Your task to perform on an android device: open a bookmark in the chrome app Image 0: 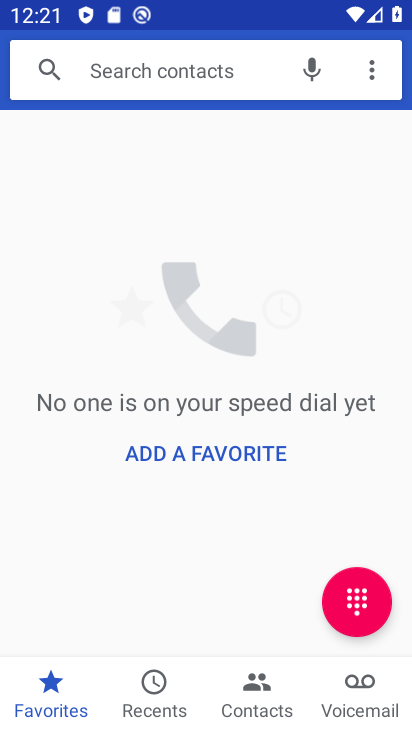
Step 0: press back button
Your task to perform on an android device: open a bookmark in the chrome app Image 1: 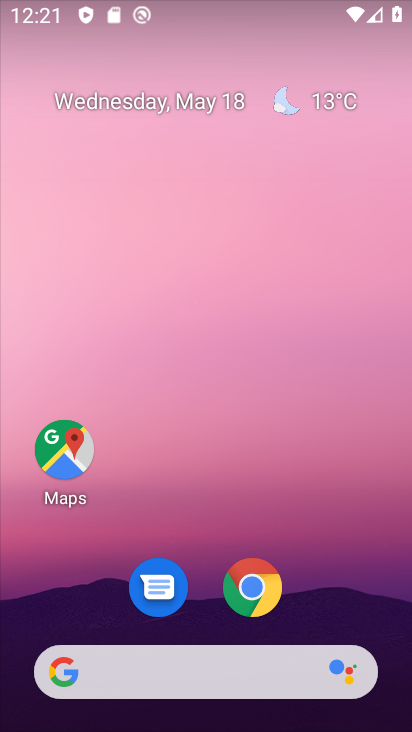
Step 1: click (252, 587)
Your task to perform on an android device: open a bookmark in the chrome app Image 2: 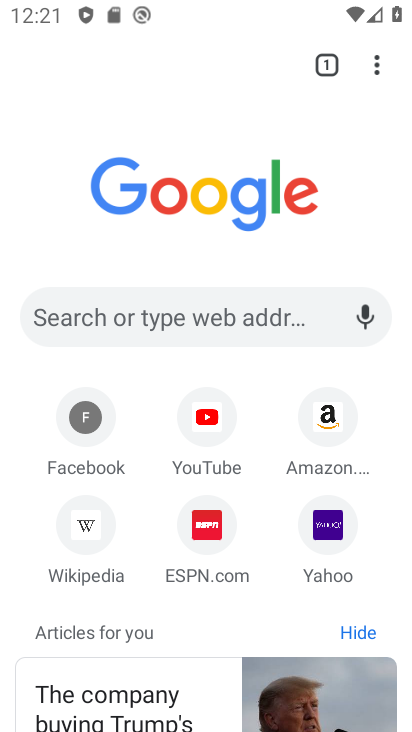
Step 2: task complete